Your task to perform on an android device: delete a single message in the gmail app Image 0: 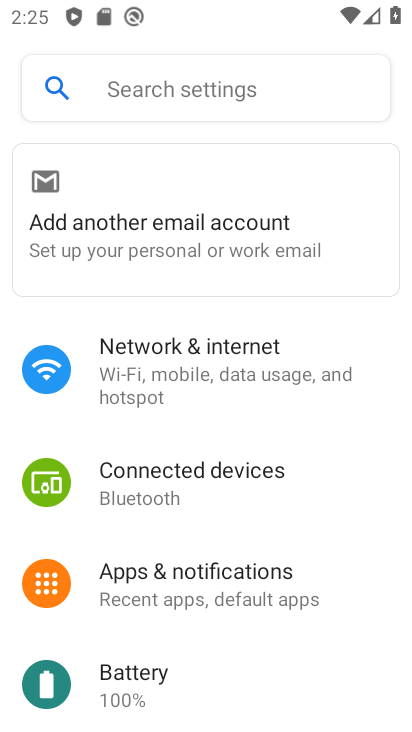
Step 0: press home button
Your task to perform on an android device: delete a single message in the gmail app Image 1: 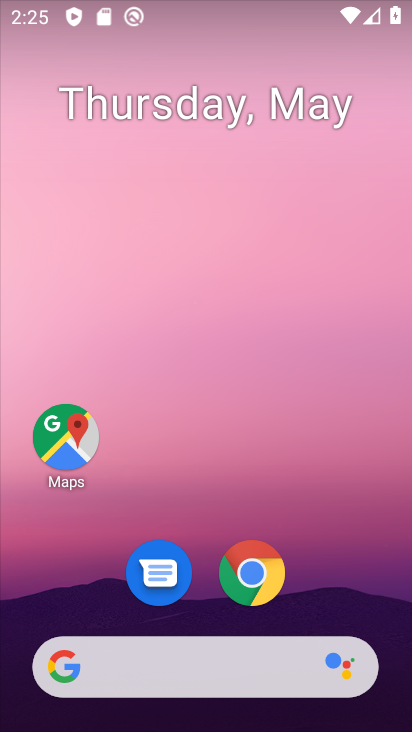
Step 1: drag from (180, 632) to (203, 163)
Your task to perform on an android device: delete a single message in the gmail app Image 2: 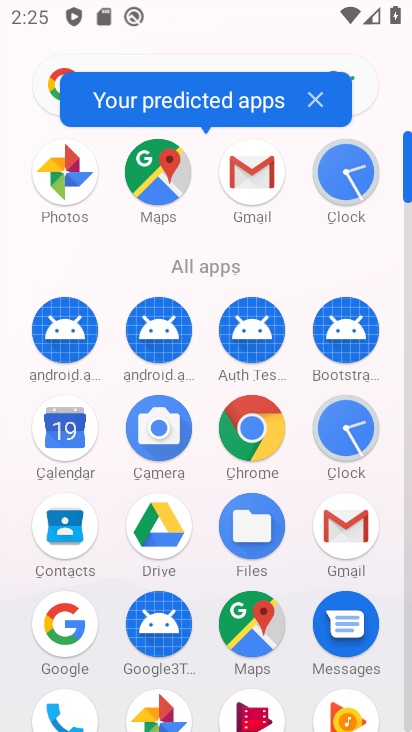
Step 2: click (337, 541)
Your task to perform on an android device: delete a single message in the gmail app Image 3: 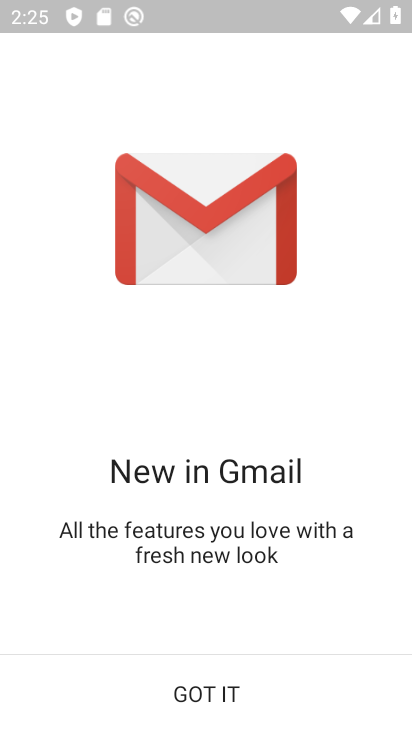
Step 3: click (219, 708)
Your task to perform on an android device: delete a single message in the gmail app Image 4: 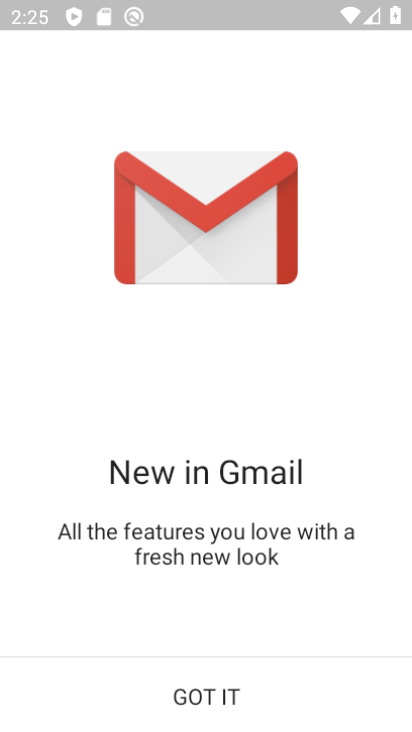
Step 4: click (215, 695)
Your task to perform on an android device: delete a single message in the gmail app Image 5: 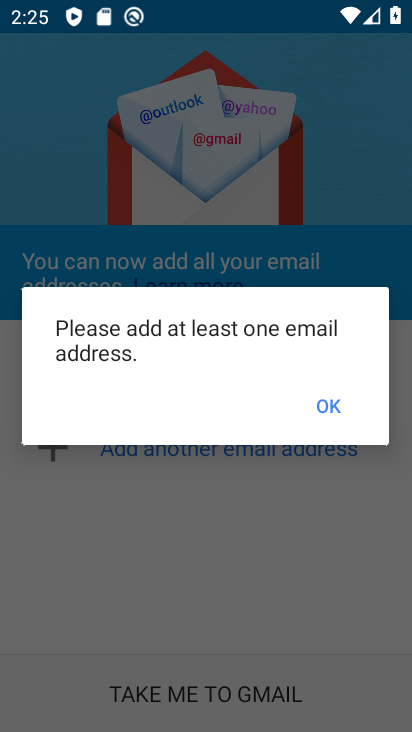
Step 5: click (188, 690)
Your task to perform on an android device: delete a single message in the gmail app Image 6: 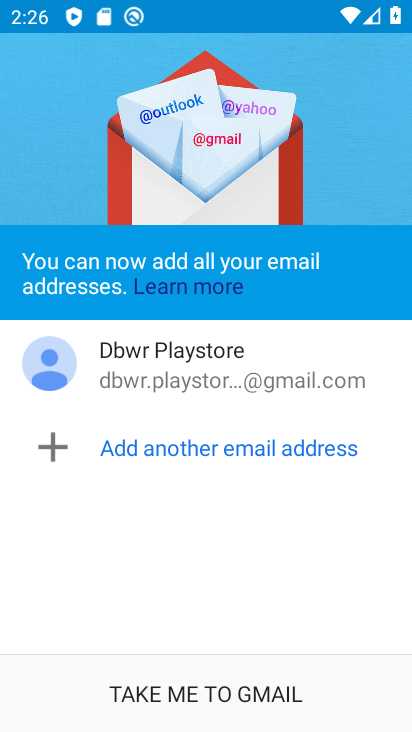
Step 6: click (239, 697)
Your task to perform on an android device: delete a single message in the gmail app Image 7: 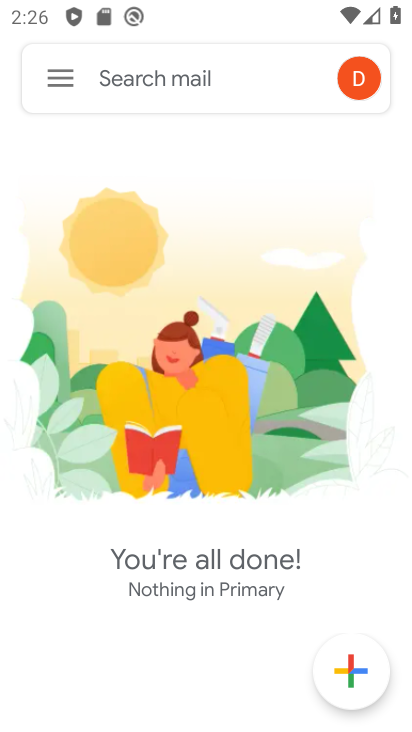
Step 7: task complete